Your task to perform on an android device: set an alarm Image 0: 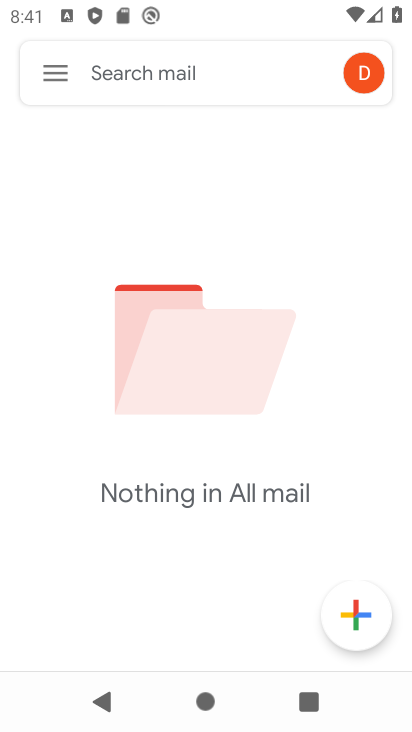
Step 0: press home button
Your task to perform on an android device: set an alarm Image 1: 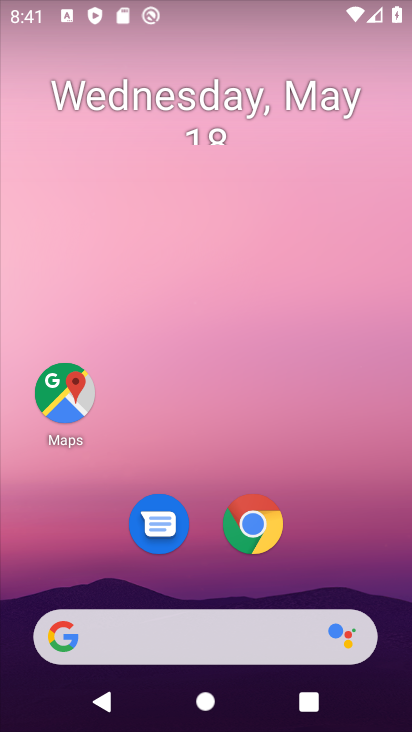
Step 1: drag from (241, 470) to (300, 34)
Your task to perform on an android device: set an alarm Image 2: 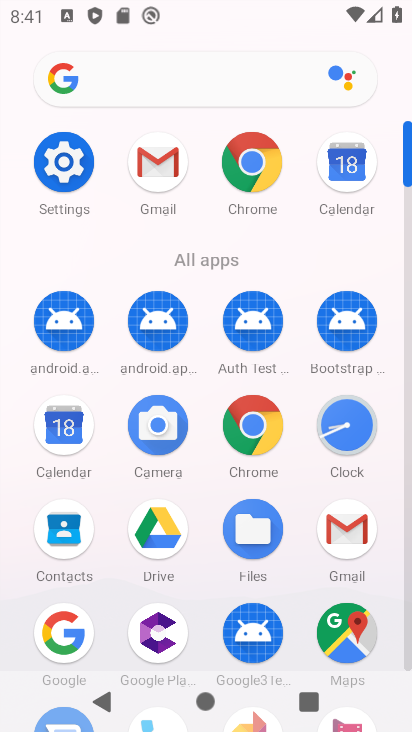
Step 2: click (351, 420)
Your task to perform on an android device: set an alarm Image 3: 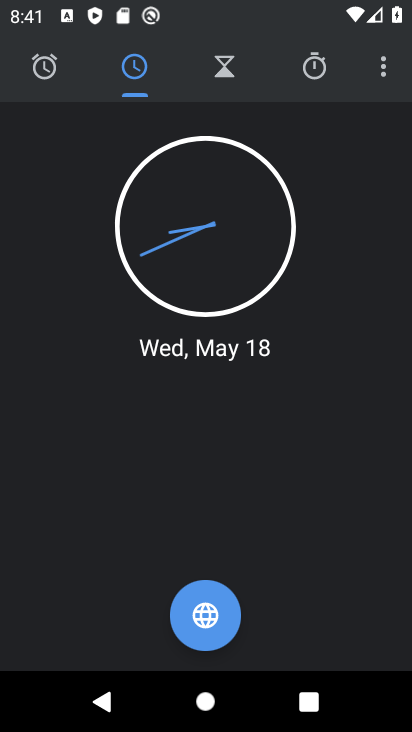
Step 3: click (48, 70)
Your task to perform on an android device: set an alarm Image 4: 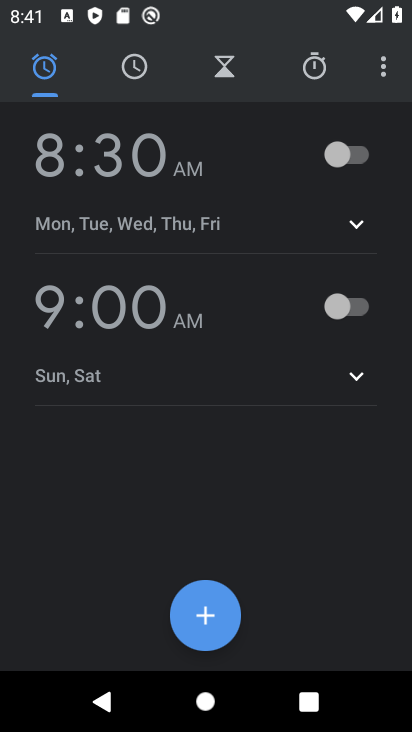
Step 4: click (211, 620)
Your task to perform on an android device: set an alarm Image 5: 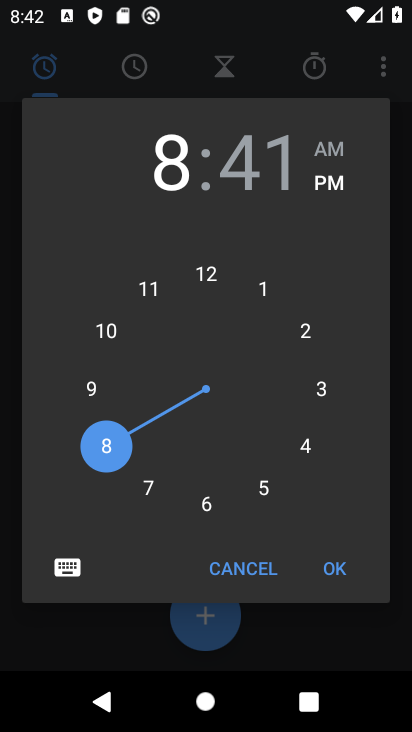
Step 5: click (260, 180)
Your task to perform on an android device: set an alarm Image 6: 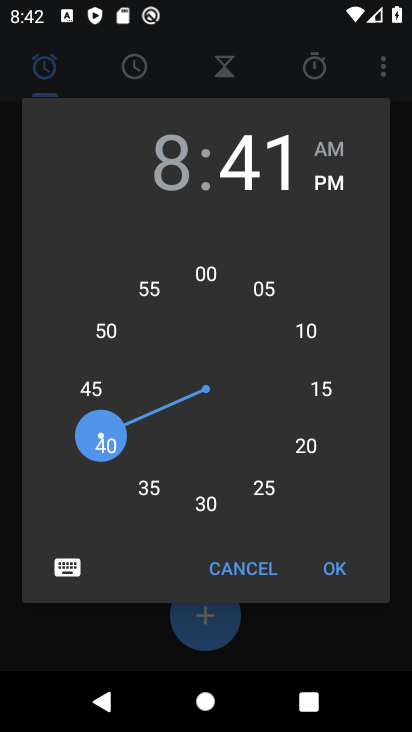
Step 6: click (203, 503)
Your task to perform on an android device: set an alarm Image 7: 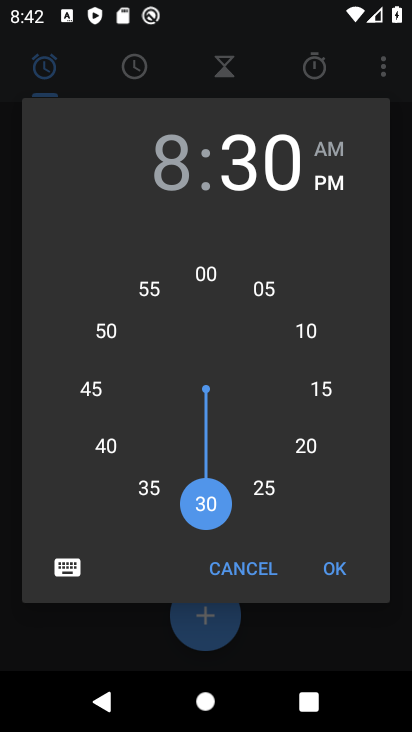
Step 7: click (337, 563)
Your task to perform on an android device: set an alarm Image 8: 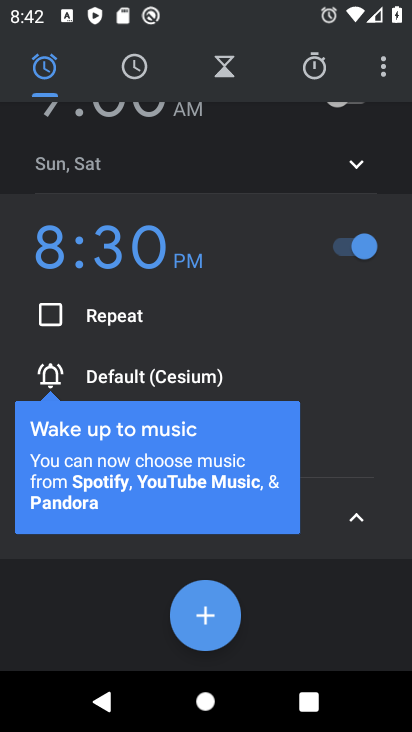
Step 8: task complete